Your task to perform on an android device: search for starred emails in the gmail app Image 0: 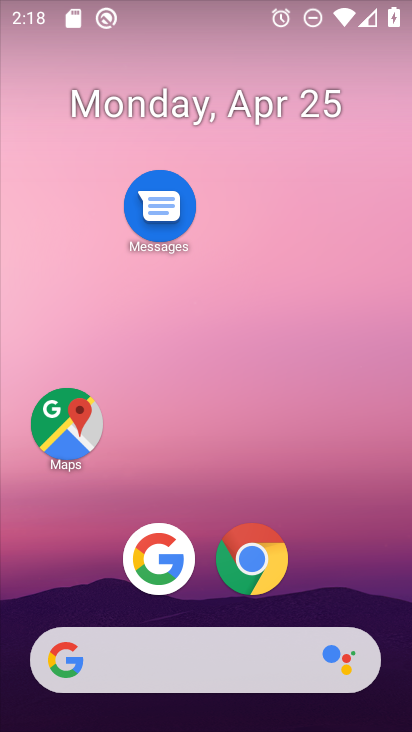
Step 0: drag from (188, 342) to (191, 183)
Your task to perform on an android device: search for starred emails in the gmail app Image 1: 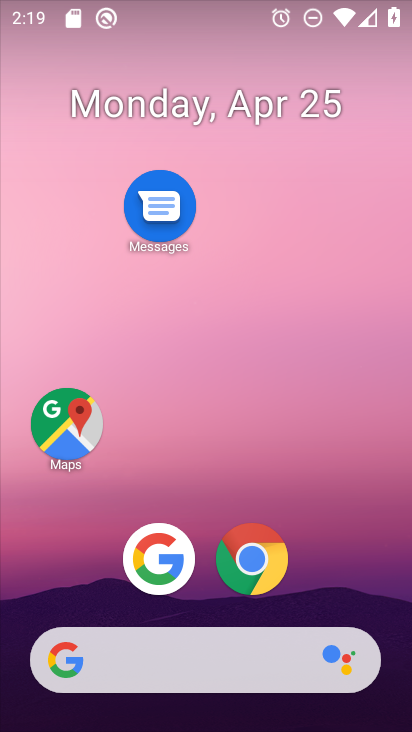
Step 1: drag from (339, 561) to (349, 149)
Your task to perform on an android device: search for starred emails in the gmail app Image 2: 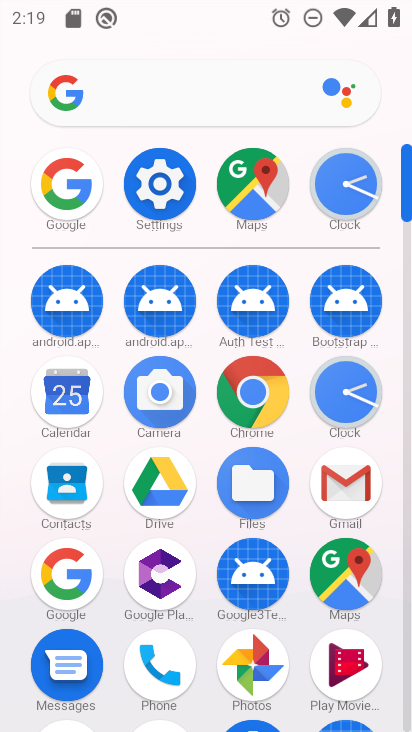
Step 2: click (366, 477)
Your task to perform on an android device: search for starred emails in the gmail app Image 3: 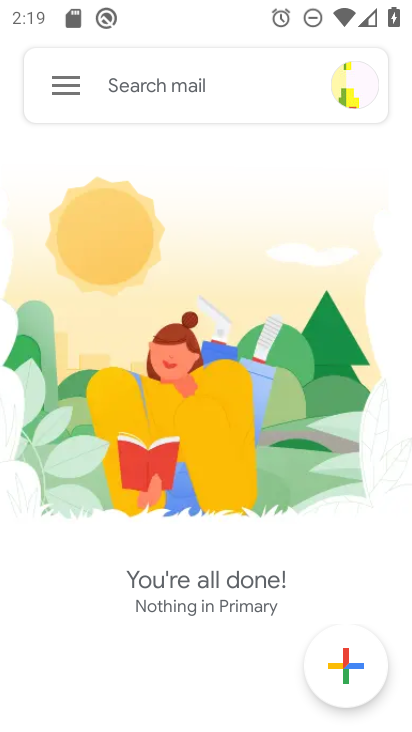
Step 3: click (83, 81)
Your task to perform on an android device: search for starred emails in the gmail app Image 4: 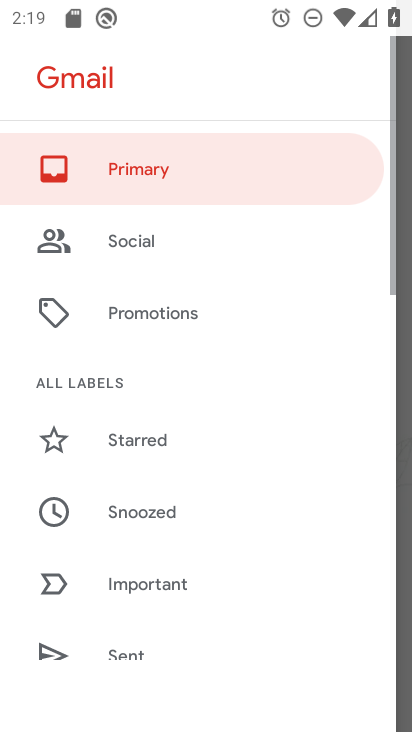
Step 4: drag from (224, 562) to (223, 411)
Your task to perform on an android device: search for starred emails in the gmail app Image 5: 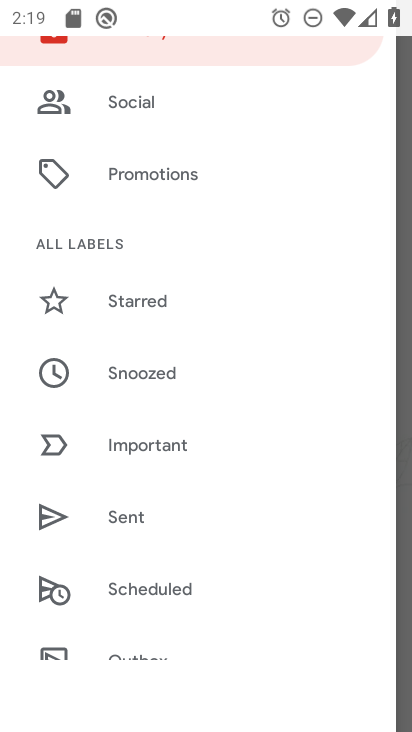
Step 5: click (135, 299)
Your task to perform on an android device: search for starred emails in the gmail app Image 6: 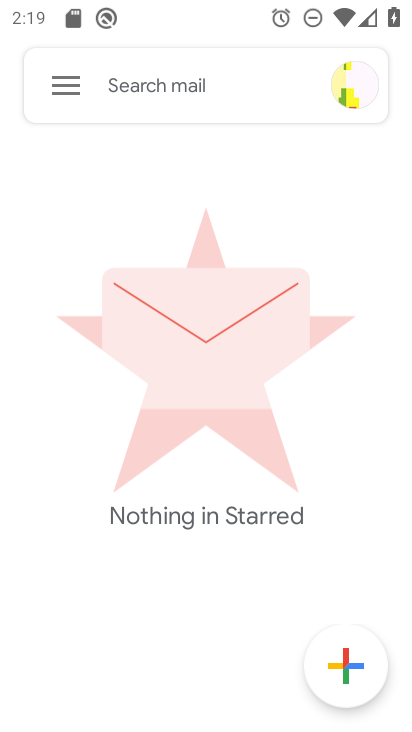
Step 6: task complete